Your task to perform on an android device: turn vacation reply on in the gmail app Image 0: 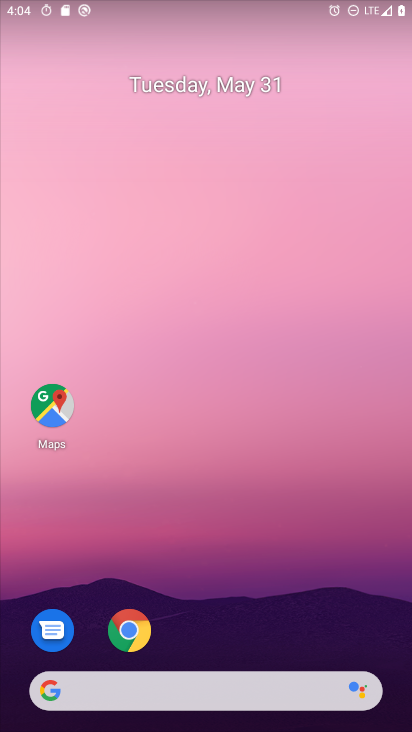
Step 0: drag from (289, 682) to (272, 148)
Your task to perform on an android device: turn vacation reply on in the gmail app Image 1: 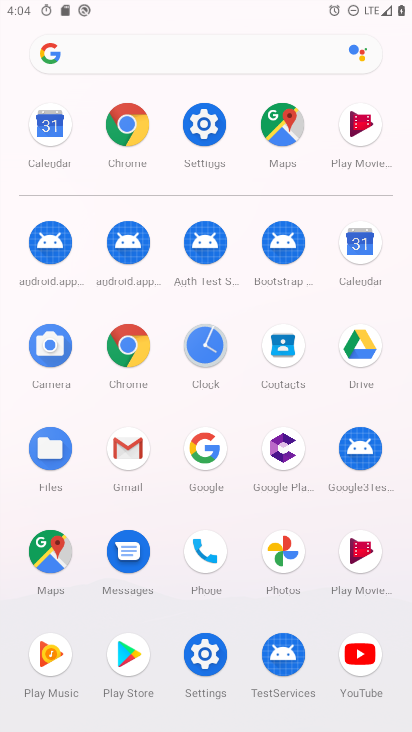
Step 1: click (128, 460)
Your task to perform on an android device: turn vacation reply on in the gmail app Image 2: 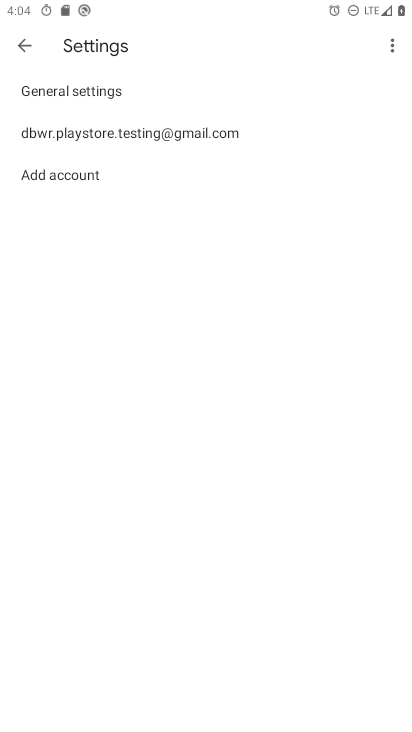
Step 2: click (48, 134)
Your task to perform on an android device: turn vacation reply on in the gmail app Image 3: 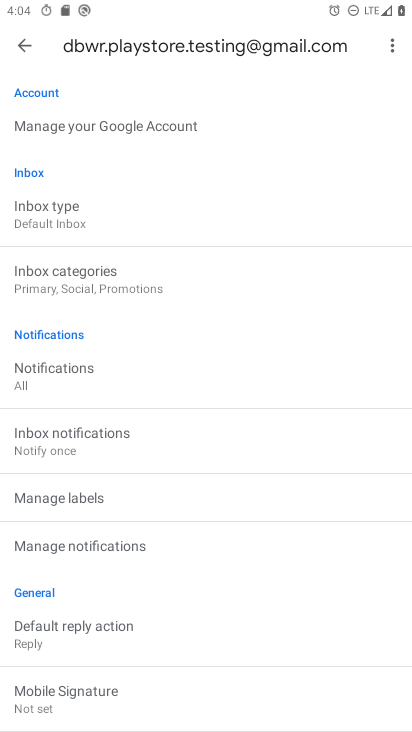
Step 3: drag from (137, 575) to (171, 161)
Your task to perform on an android device: turn vacation reply on in the gmail app Image 4: 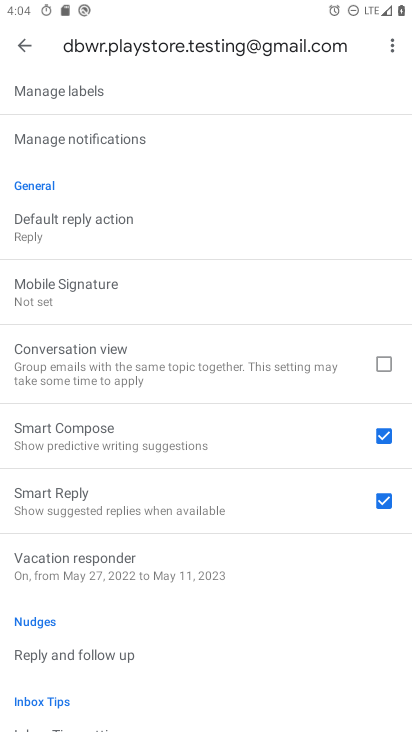
Step 4: click (203, 554)
Your task to perform on an android device: turn vacation reply on in the gmail app Image 5: 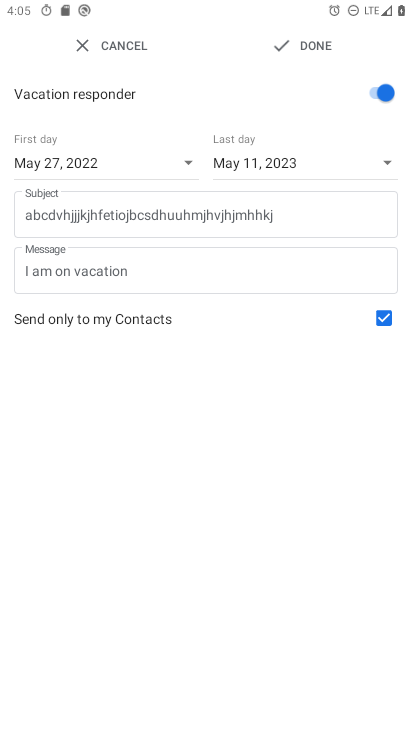
Step 5: task complete